Your task to perform on an android device: check the backup settings in the google photos Image 0: 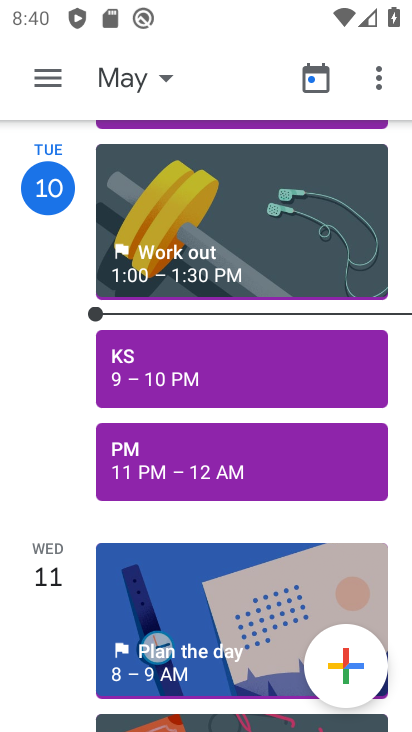
Step 0: drag from (150, 225) to (205, 518)
Your task to perform on an android device: check the backup settings in the google photos Image 1: 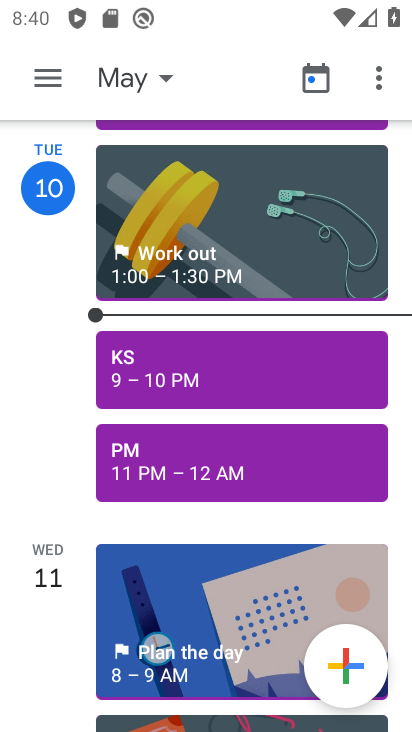
Step 1: drag from (160, 278) to (205, 588)
Your task to perform on an android device: check the backup settings in the google photos Image 2: 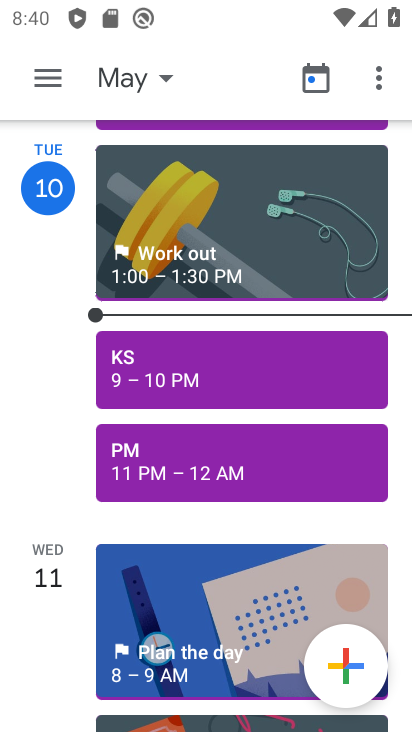
Step 2: click (224, 440)
Your task to perform on an android device: check the backup settings in the google photos Image 3: 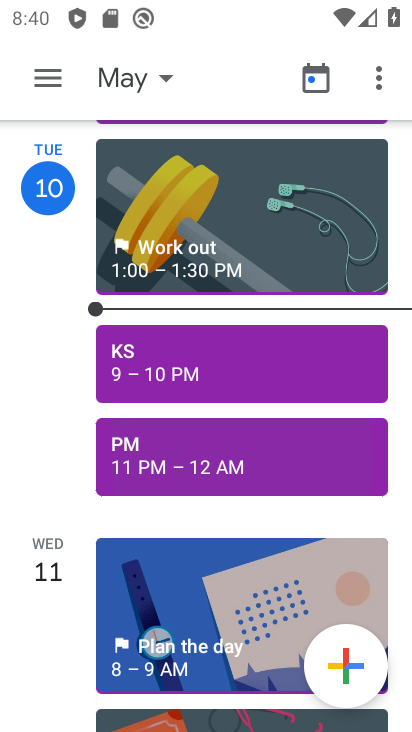
Step 3: drag from (172, 257) to (225, 490)
Your task to perform on an android device: check the backup settings in the google photos Image 4: 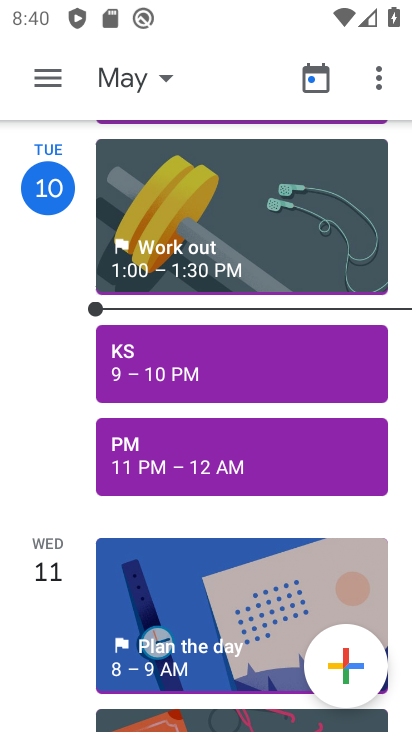
Step 4: drag from (140, 260) to (181, 609)
Your task to perform on an android device: check the backup settings in the google photos Image 5: 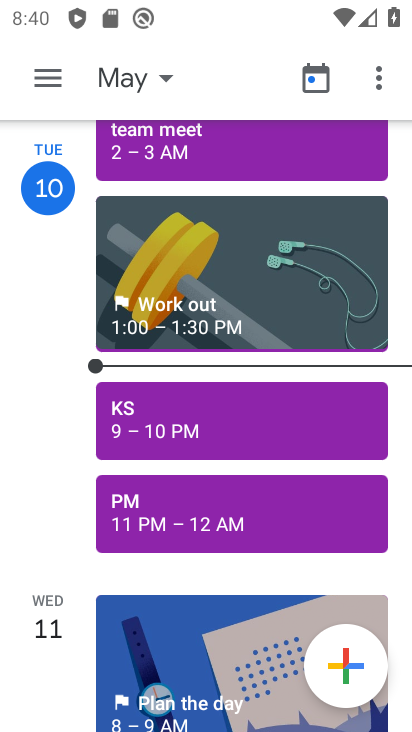
Step 5: drag from (234, 559) to (263, 626)
Your task to perform on an android device: check the backup settings in the google photos Image 6: 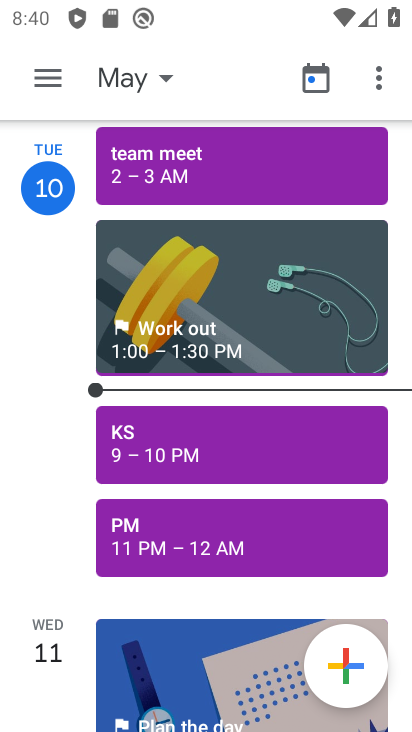
Step 6: drag from (145, 283) to (212, 476)
Your task to perform on an android device: check the backup settings in the google photos Image 7: 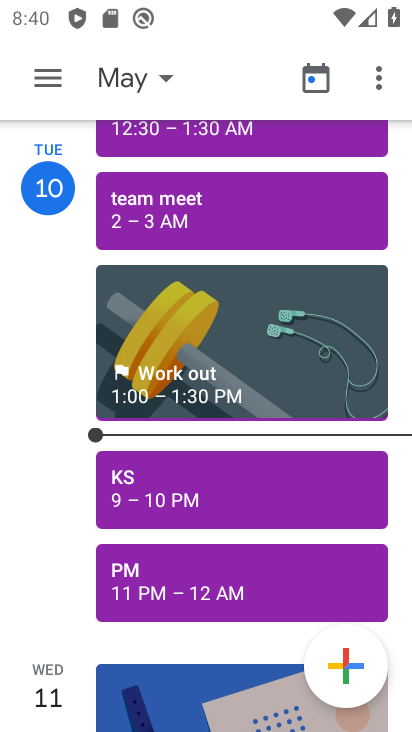
Step 7: press back button
Your task to perform on an android device: check the backup settings in the google photos Image 8: 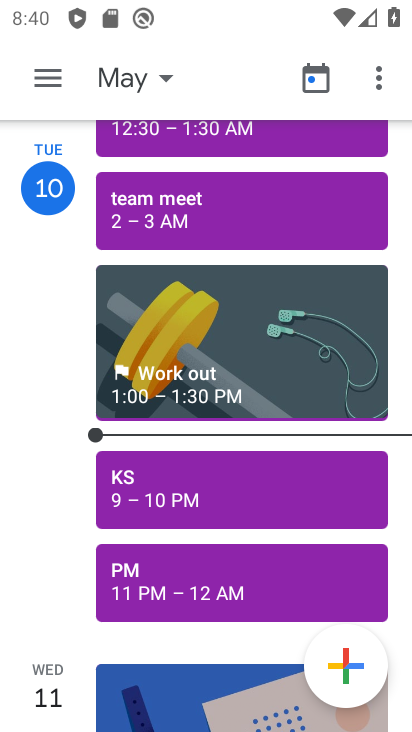
Step 8: press back button
Your task to perform on an android device: check the backup settings in the google photos Image 9: 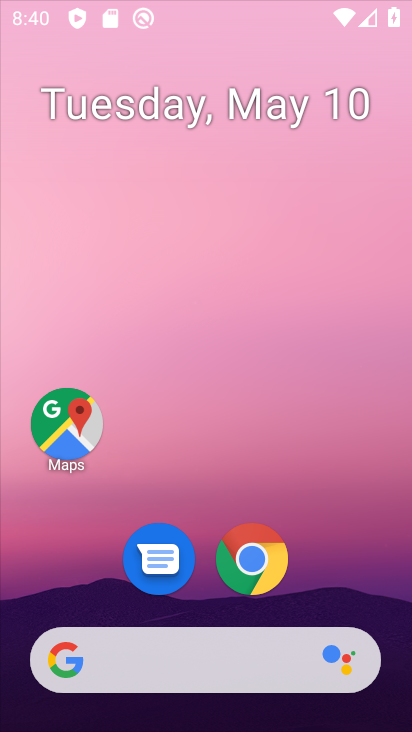
Step 9: press back button
Your task to perform on an android device: check the backup settings in the google photos Image 10: 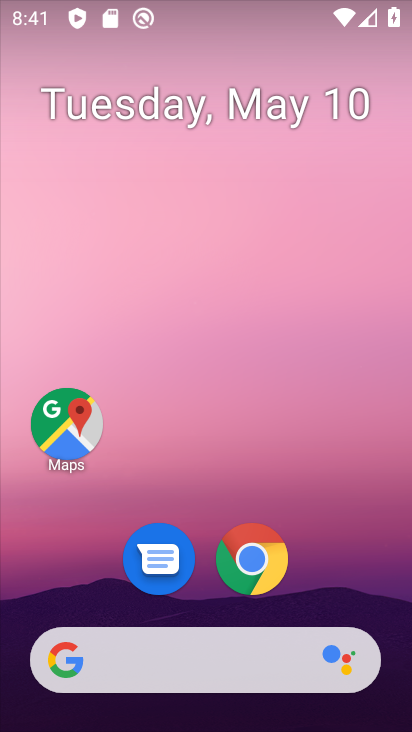
Step 10: drag from (364, 574) to (133, 88)
Your task to perform on an android device: check the backup settings in the google photos Image 11: 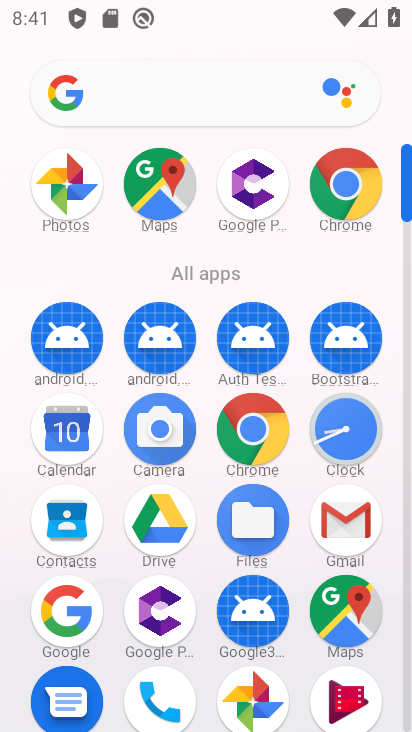
Step 11: drag from (263, 440) to (47, 12)
Your task to perform on an android device: check the backup settings in the google photos Image 12: 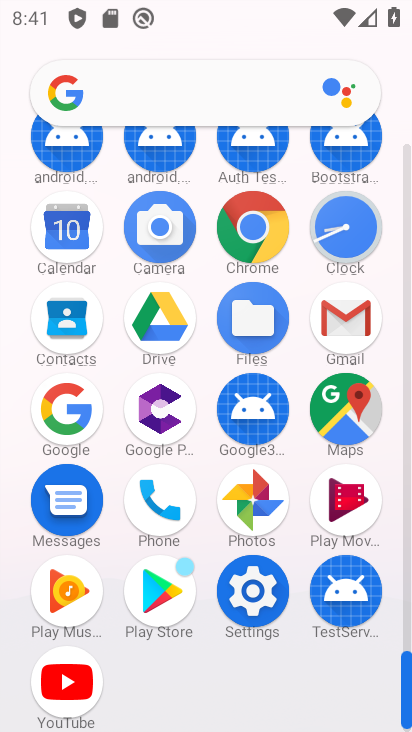
Step 12: click (260, 506)
Your task to perform on an android device: check the backup settings in the google photos Image 13: 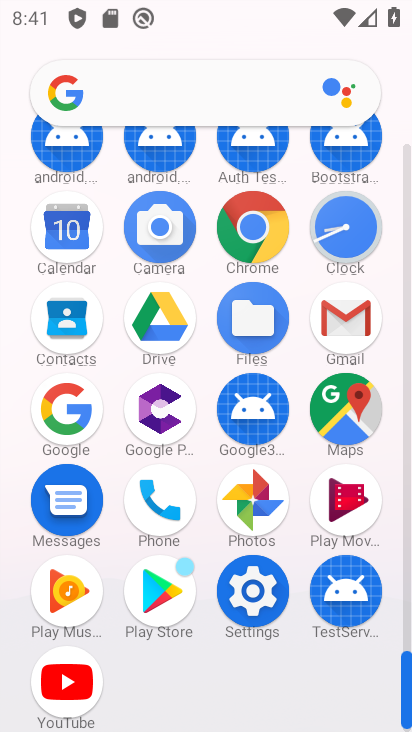
Step 13: click (261, 508)
Your task to perform on an android device: check the backup settings in the google photos Image 14: 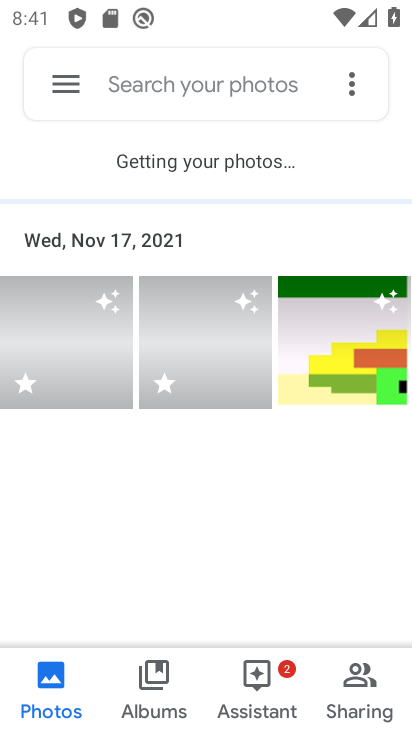
Step 14: click (252, 505)
Your task to perform on an android device: check the backup settings in the google photos Image 15: 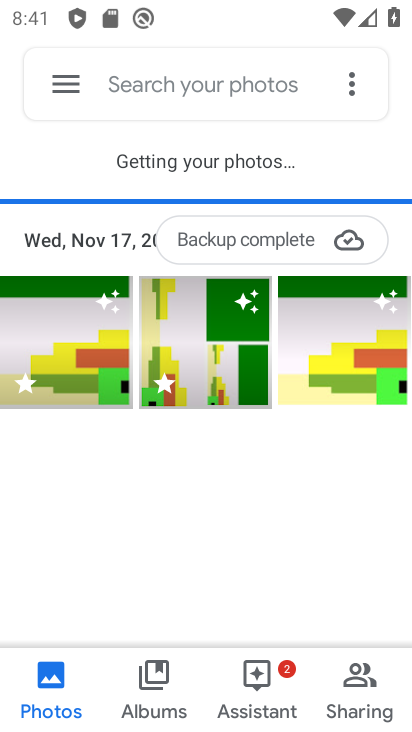
Step 15: click (348, 238)
Your task to perform on an android device: check the backup settings in the google photos Image 16: 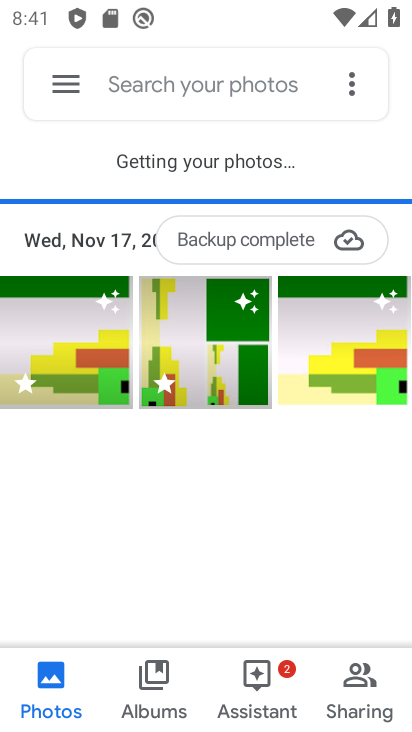
Step 16: click (347, 237)
Your task to perform on an android device: check the backup settings in the google photos Image 17: 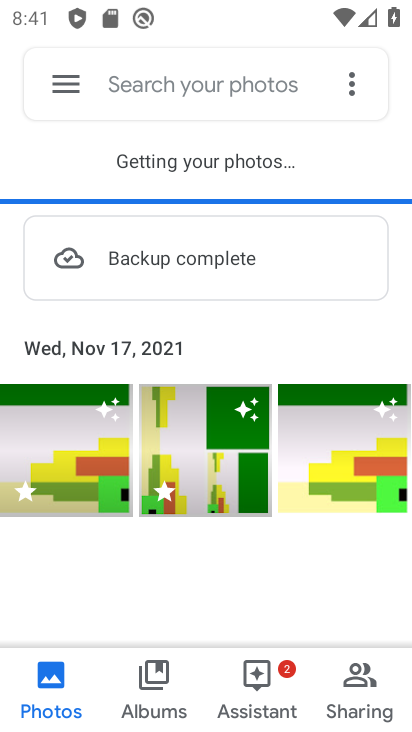
Step 17: click (348, 238)
Your task to perform on an android device: check the backup settings in the google photos Image 18: 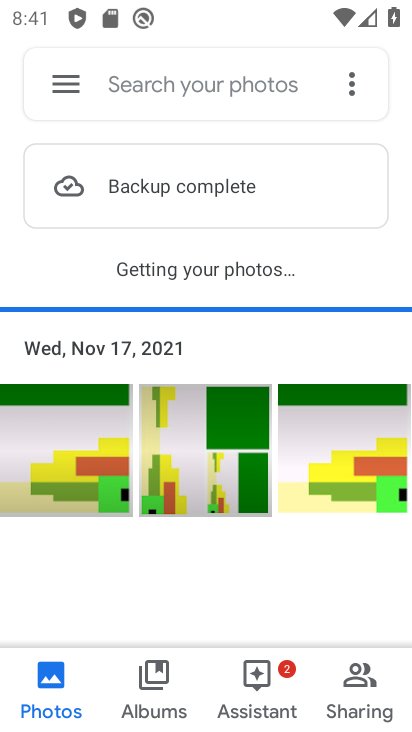
Step 18: click (348, 238)
Your task to perform on an android device: check the backup settings in the google photos Image 19: 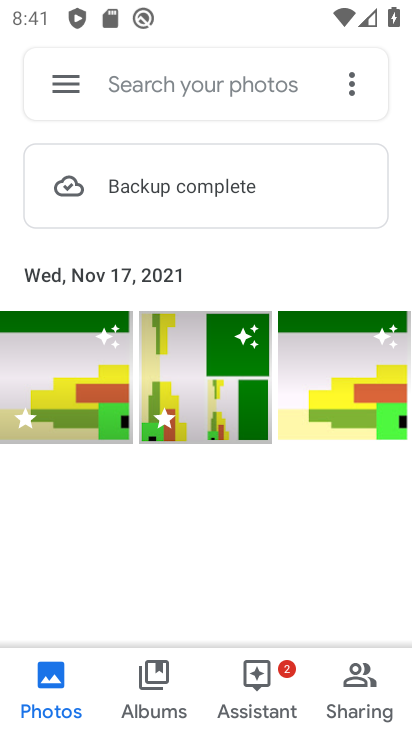
Step 19: click (349, 237)
Your task to perform on an android device: check the backup settings in the google photos Image 20: 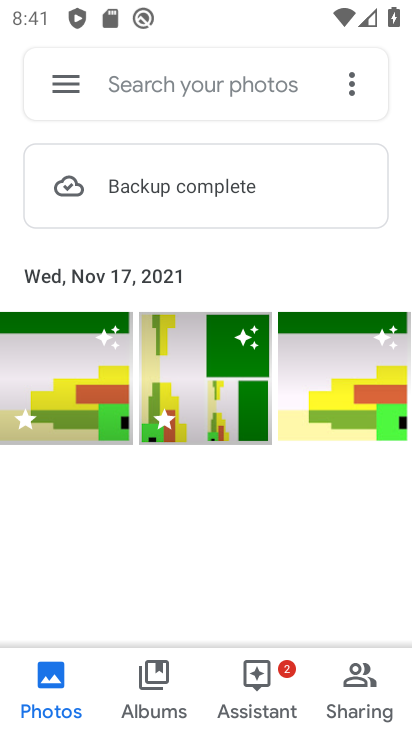
Step 20: click (349, 239)
Your task to perform on an android device: check the backup settings in the google photos Image 21: 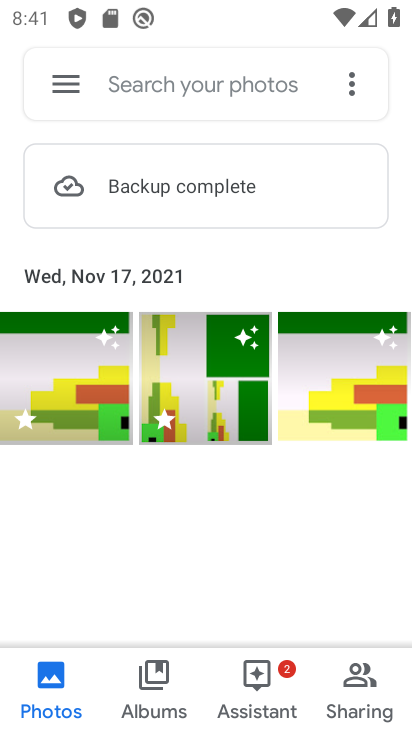
Step 21: click (349, 239)
Your task to perform on an android device: check the backup settings in the google photos Image 22: 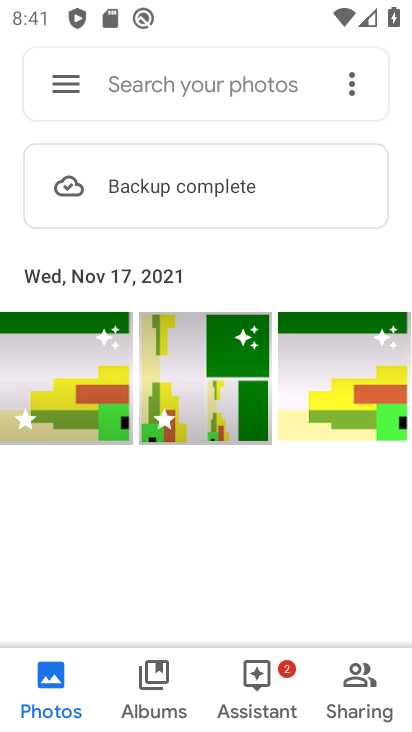
Step 22: click (349, 239)
Your task to perform on an android device: check the backup settings in the google photos Image 23: 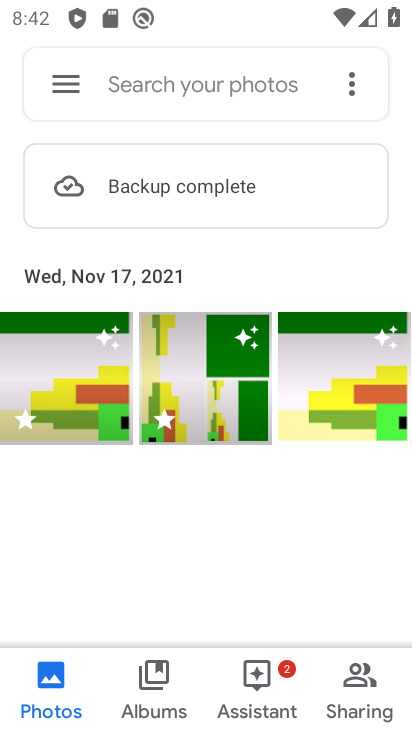
Step 23: click (148, 184)
Your task to perform on an android device: check the backup settings in the google photos Image 24: 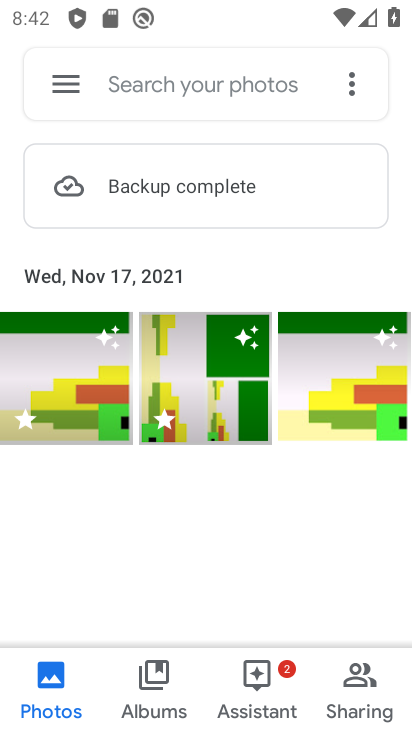
Step 24: click (148, 184)
Your task to perform on an android device: check the backup settings in the google photos Image 25: 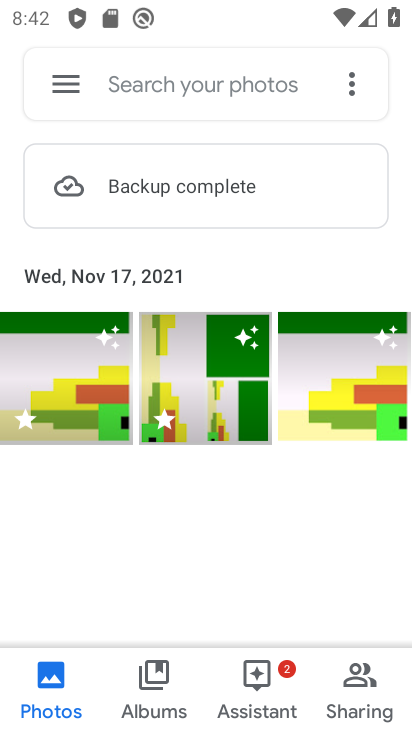
Step 25: click (148, 184)
Your task to perform on an android device: check the backup settings in the google photos Image 26: 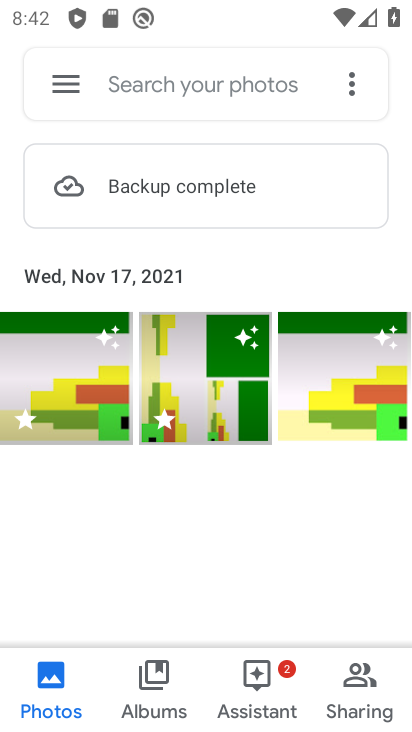
Step 26: click (148, 184)
Your task to perform on an android device: check the backup settings in the google photos Image 27: 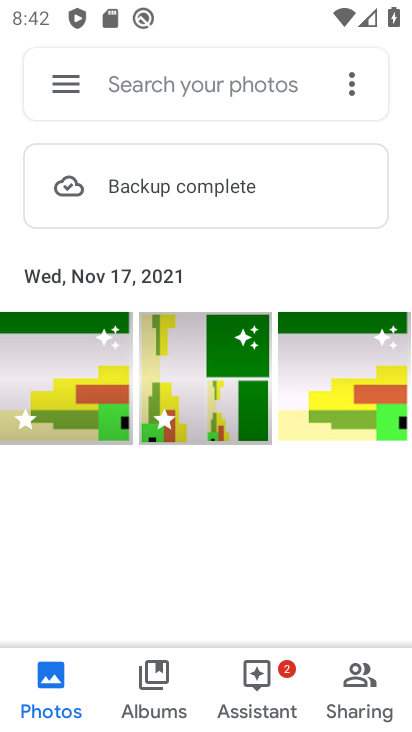
Step 27: click (148, 184)
Your task to perform on an android device: check the backup settings in the google photos Image 28: 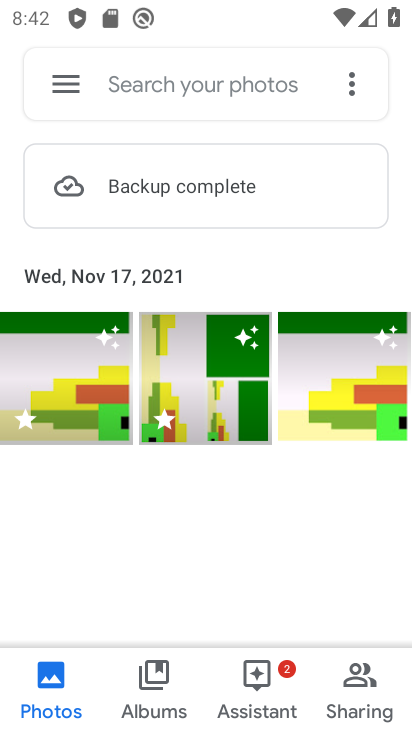
Step 28: click (164, 182)
Your task to perform on an android device: check the backup settings in the google photos Image 29: 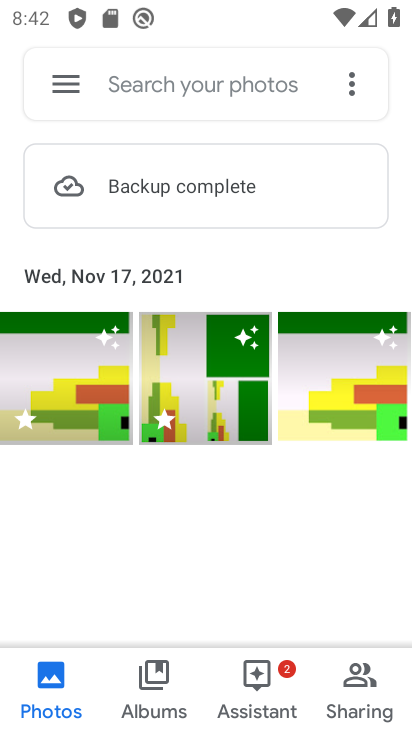
Step 29: click (164, 182)
Your task to perform on an android device: check the backup settings in the google photos Image 30: 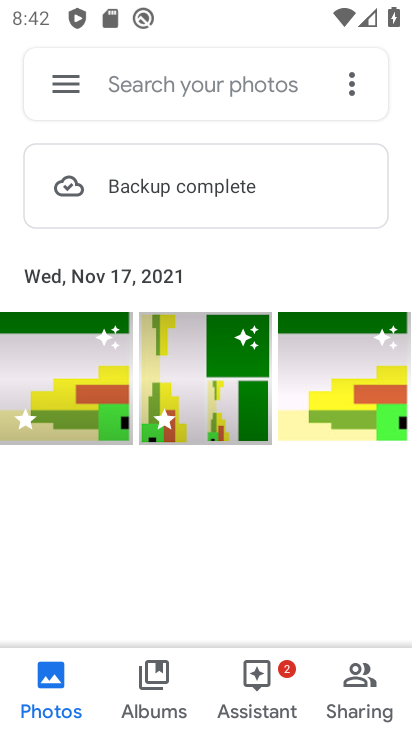
Step 30: click (165, 182)
Your task to perform on an android device: check the backup settings in the google photos Image 31: 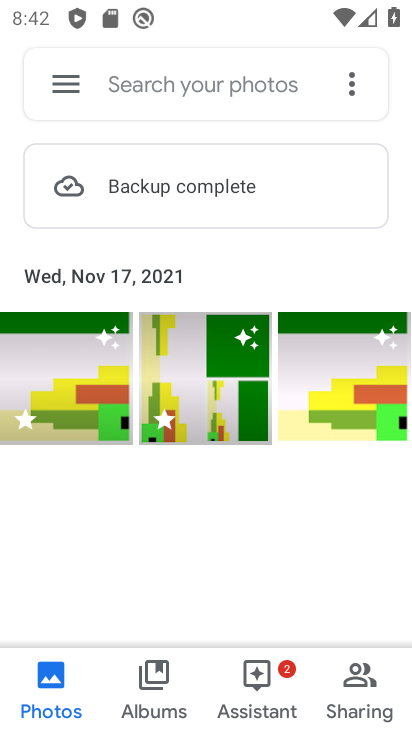
Step 31: click (167, 185)
Your task to perform on an android device: check the backup settings in the google photos Image 32: 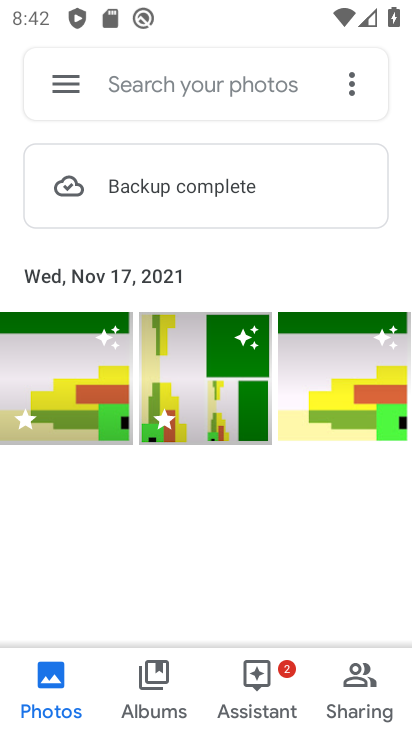
Step 32: click (172, 182)
Your task to perform on an android device: check the backup settings in the google photos Image 33: 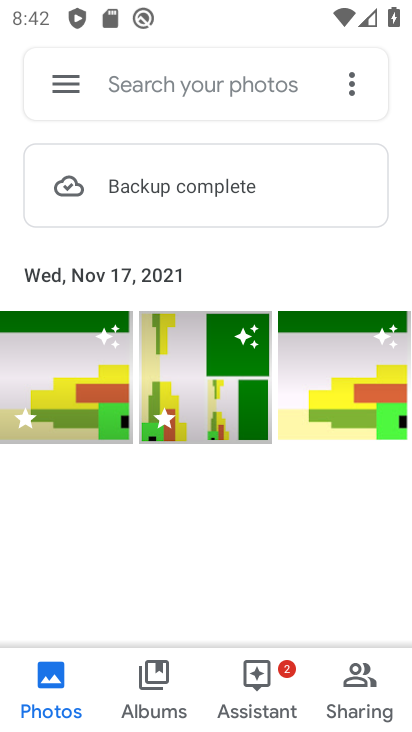
Step 33: click (177, 180)
Your task to perform on an android device: check the backup settings in the google photos Image 34: 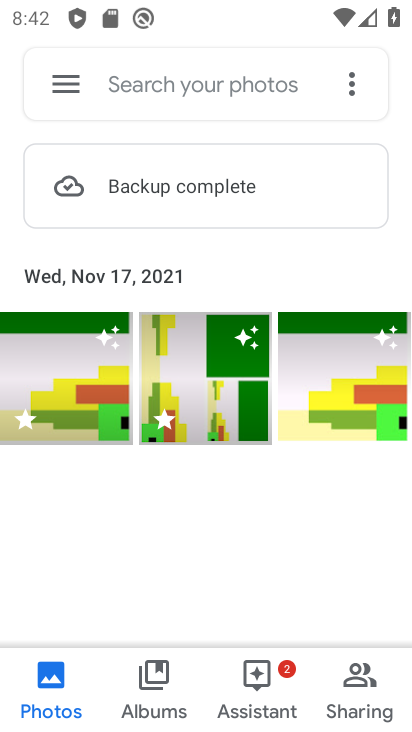
Step 34: click (256, 188)
Your task to perform on an android device: check the backup settings in the google photos Image 35: 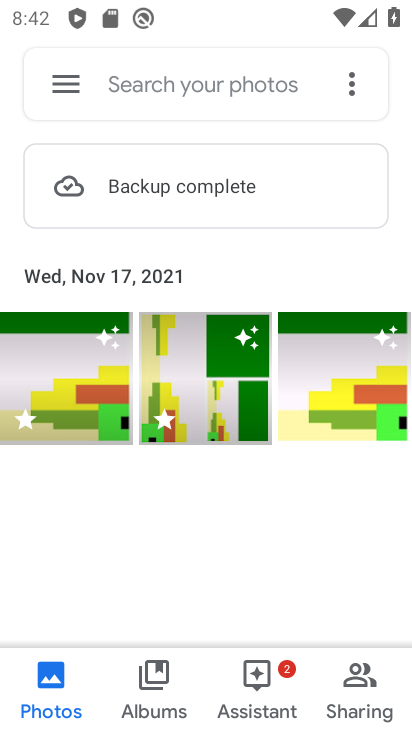
Step 35: click (255, 187)
Your task to perform on an android device: check the backup settings in the google photos Image 36: 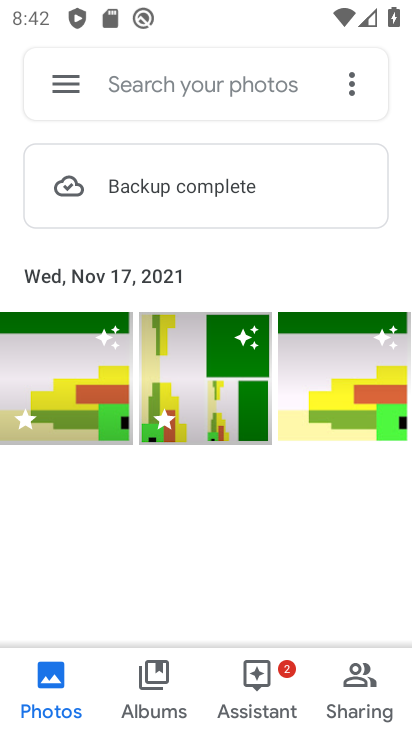
Step 36: click (255, 187)
Your task to perform on an android device: check the backup settings in the google photos Image 37: 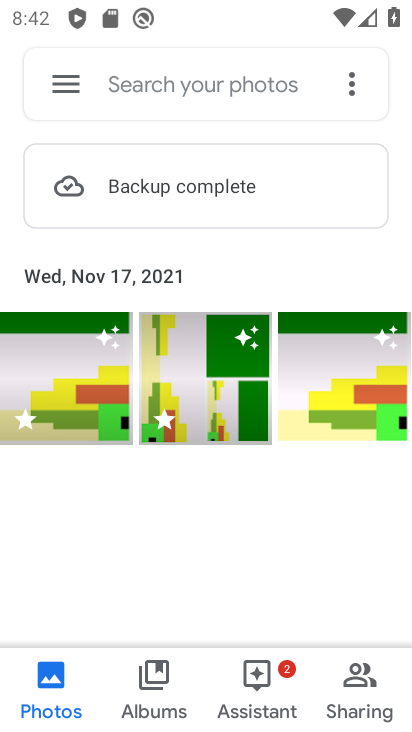
Step 37: click (255, 187)
Your task to perform on an android device: check the backup settings in the google photos Image 38: 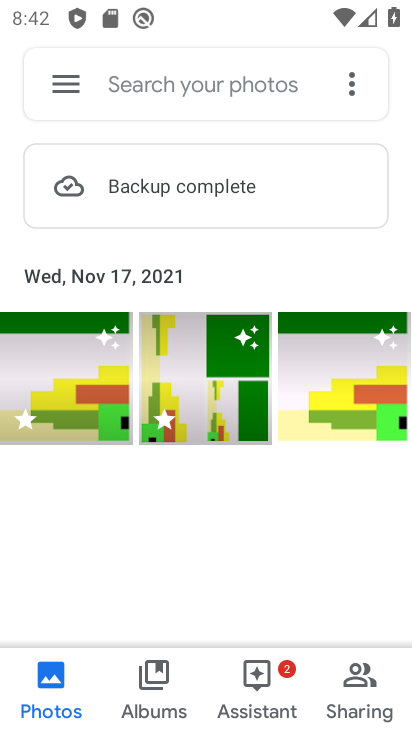
Step 38: task complete